Your task to perform on an android device: change text size in settings app Image 0: 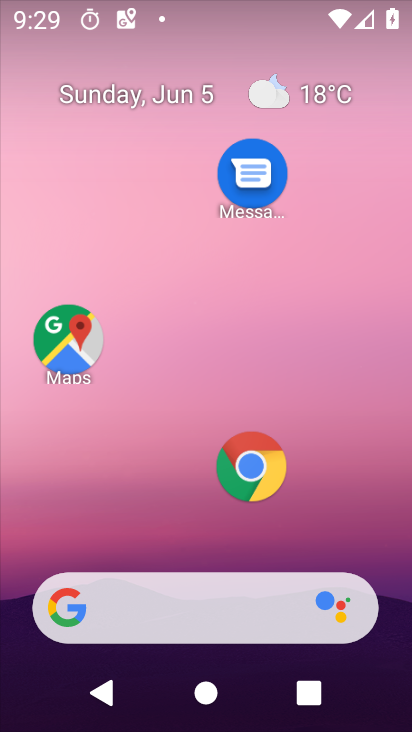
Step 0: drag from (184, 483) to (274, 5)
Your task to perform on an android device: change text size in settings app Image 1: 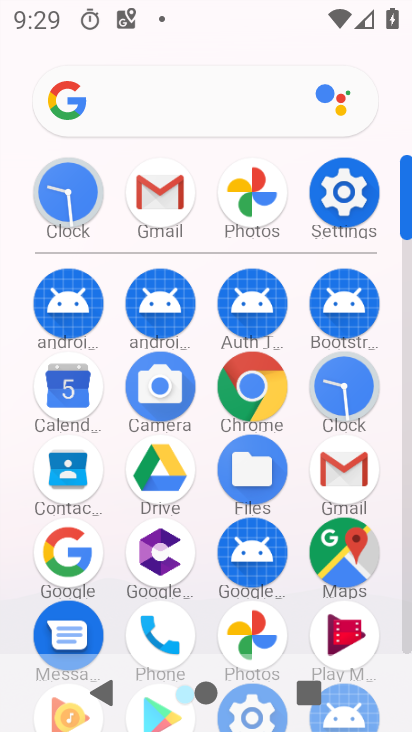
Step 1: click (348, 208)
Your task to perform on an android device: change text size in settings app Image 2: 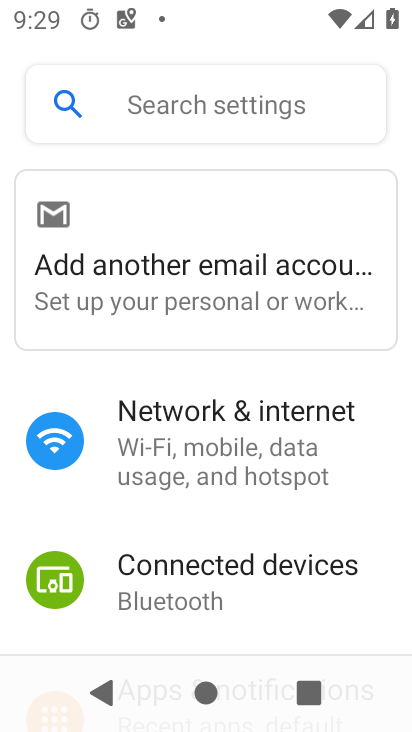
Step 2: drag from (209, 543) to (270, 71)
Your task to perform on an android device: change text size in settings app Image 3: 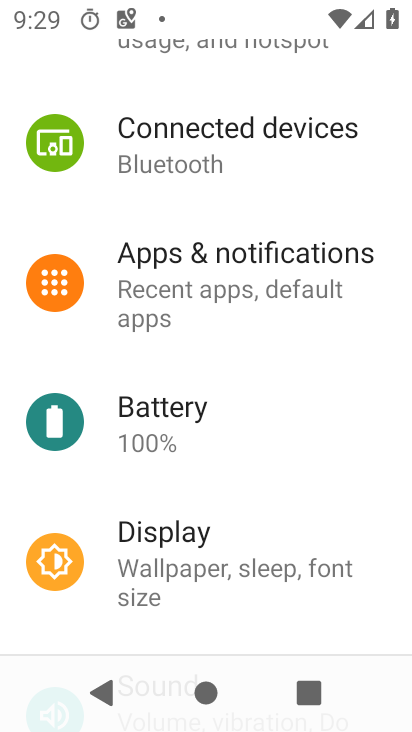
Step 3: drag from (209, 542) to (243, 94)
Your task to perform on an android device: change text size in settings app Image 4: 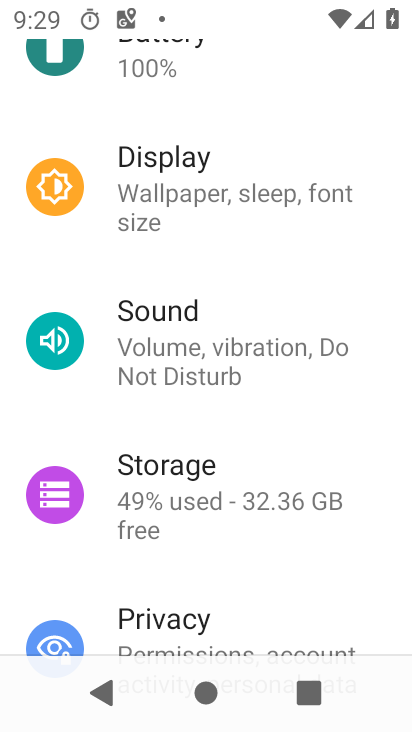
Step 4: drag from (221, 536) to (288, 178)
Your task to perform on an android device: change text size in settings app Image 5: 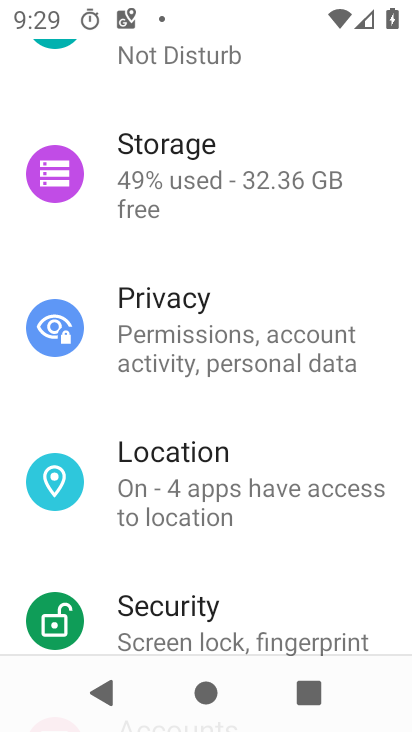
Step 5: drag from (221, 534) to (279, 106)
Your task to perform on an android device: change text size in settings app Image 6: 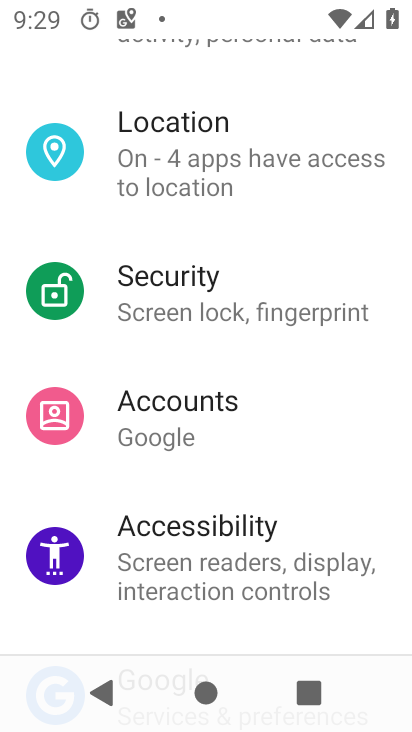
Step 6: drag from (241, 191) to (254, 560)
Your task to perform on an android device: change text size in settings app Image 7: 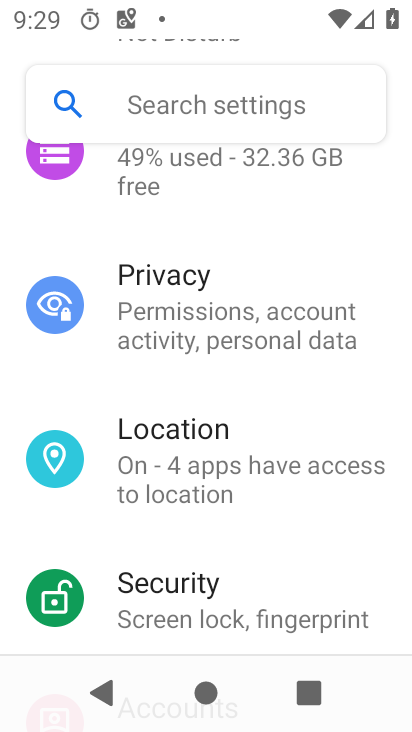
Step 7: drag from (230, 230) to (310, 728)
Your task to perform on an android device: change text size in settings app Image 8: 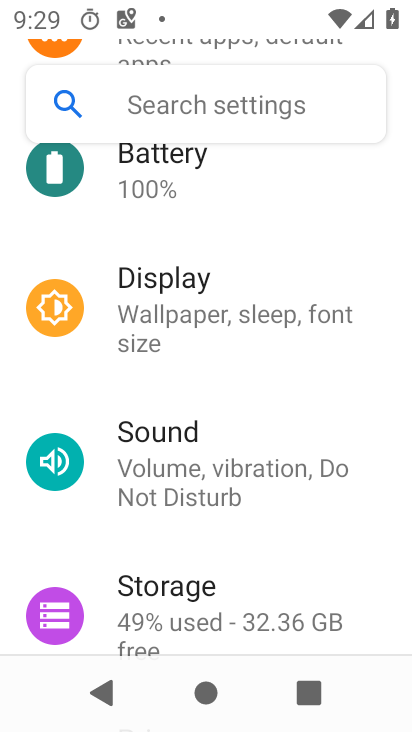
Step 8: click (140, 300)
Your task to perform on an android device: change text size in settings app Image 9: 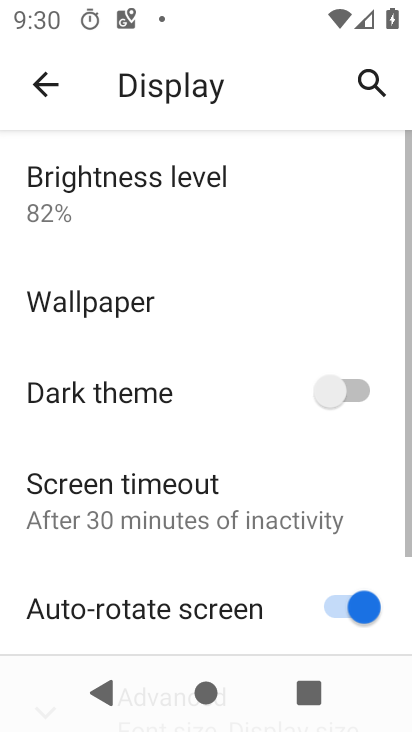
Step 9: drag from (210, 491) to (313, 100)
Your task to perform on an android device: change text size in settings app Image 10: 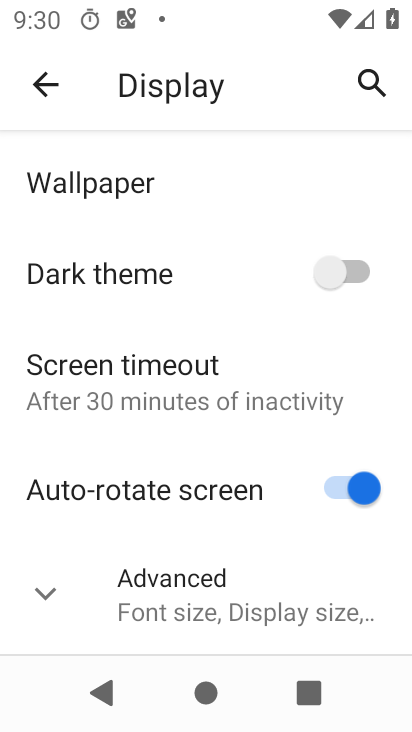
Step 10: click (168, 570)
Your task to perform on an android device: change text size in settings app Image 11: 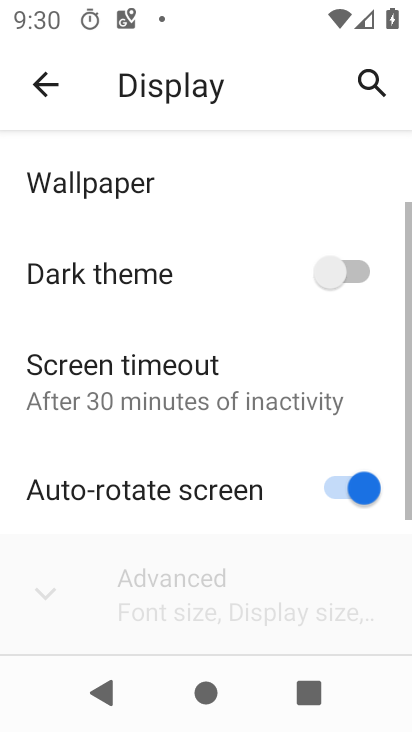
Step 11: drag from (169, 566) to (311, 67)
Your task to perform on an android device: change text size in settings app Image 12: 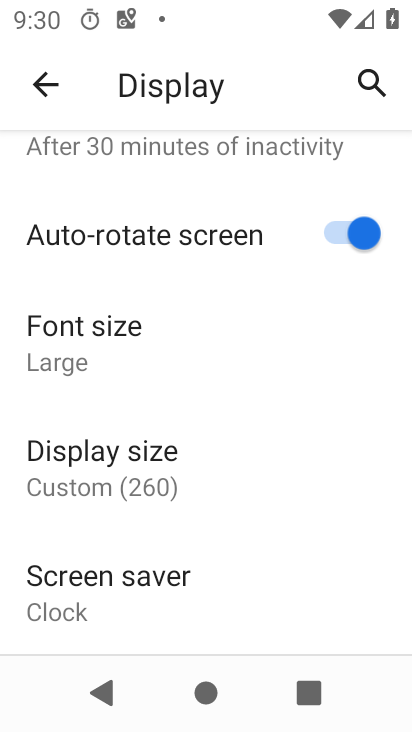
Step 12: click (105, 320)
Your task to perform on an android device: change text size in settings app Image 13: 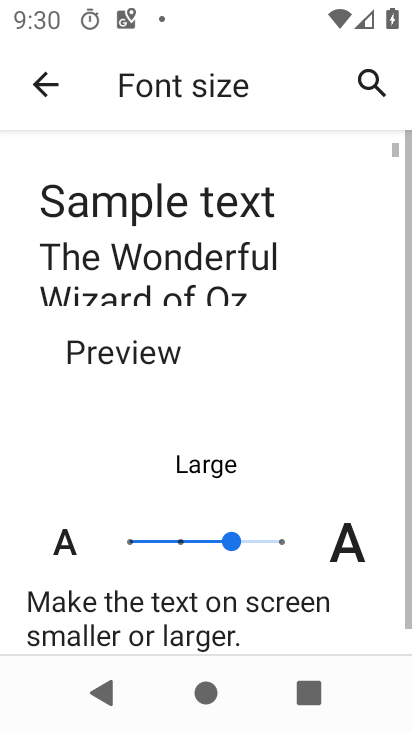
Step 13: drag from (190, 384) to (301, 41)
Your task to perform on an android device: change text size in settings app Image 14: 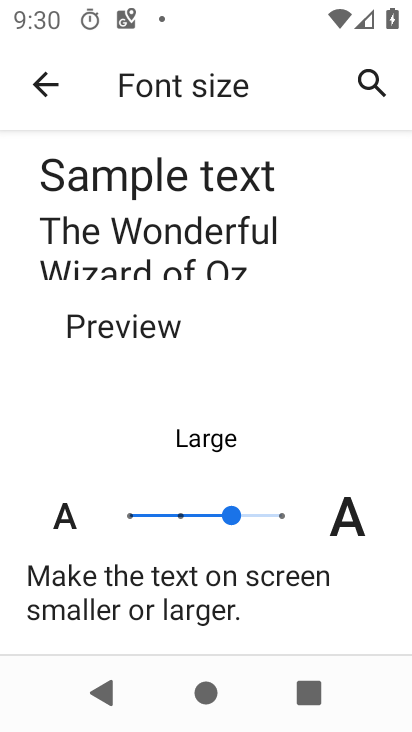
Step 14: drag from (194, 585) to (177, 372)
Your task to perform on an android device: change text size in settings app Image 15: 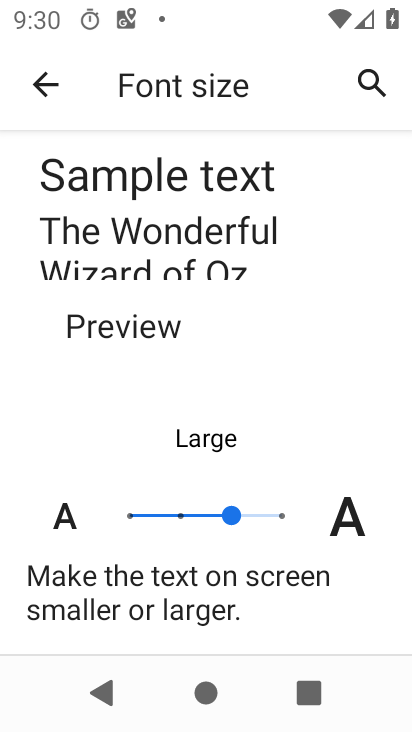
Step 15: click (179, 507)
Your task to perform on an android device: change text size in settings app Image 16: 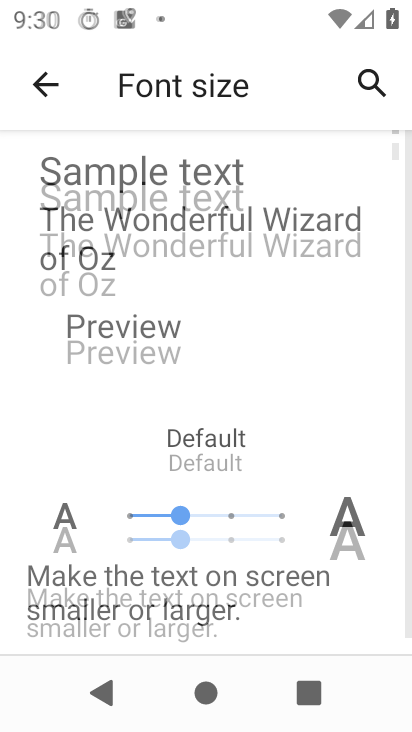
Step 16: task complete